Your task to perform on an android device: change notifications settings Image 0: 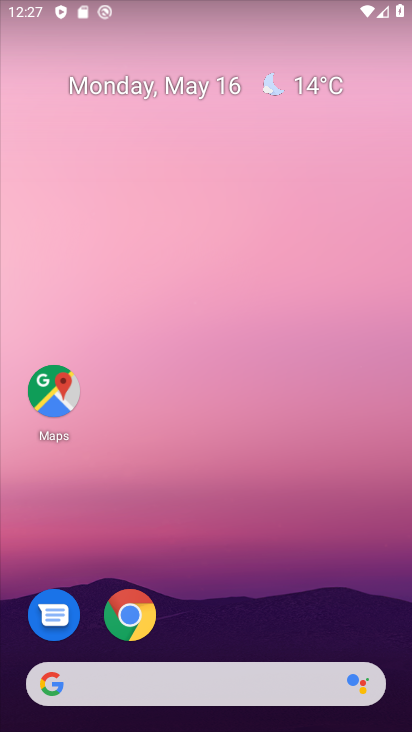
Step 0: drag from (318, 542) to (345, 68)
Your task to perform on an android device: change notifications settings Image 1: 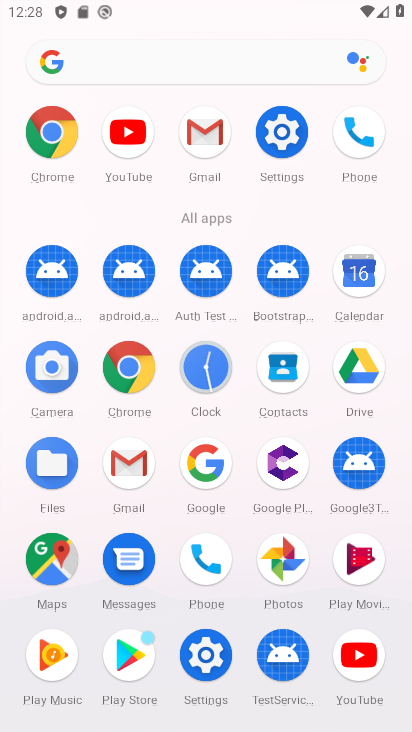
Step 1: click (195, 674)
Your task to perform on an android device: change notifications settings Image 2: 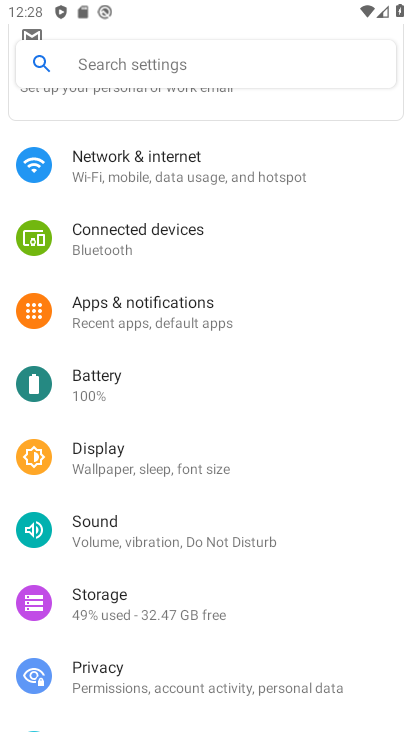
Step 2: click (168, 325)
Your task to perform on an android device: change notifications settings Image 3: 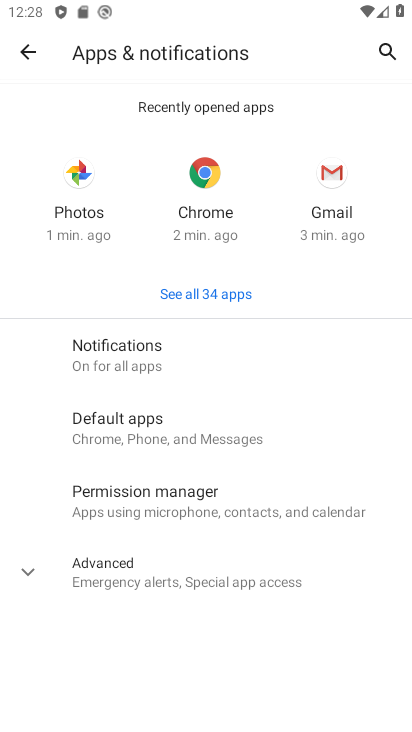
Step 3: click (115, 349)
Your task to perform on an android device: change notifications settings Image 4: 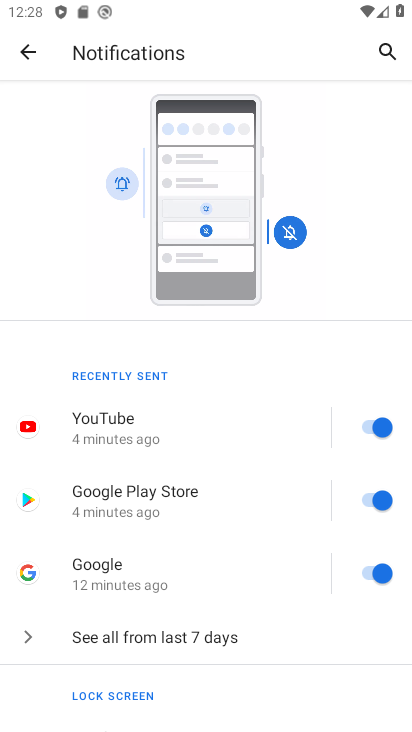
Step 4: drag from (219, 626) to (228, 334)
Your task to perform on an android device: change notifications settings Image 5: 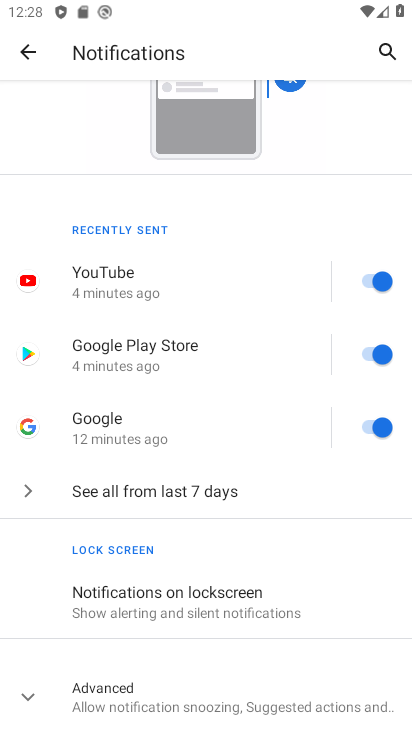
Step 5: click (234, 599)
Your task to perform on an android device: change notifications settings Image 6: 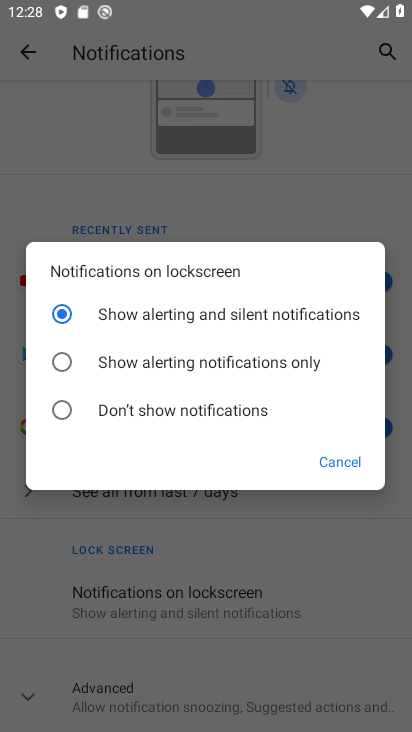
Step 6: task complete